Your task to perform on an android device: Show me popular videos on Youtube Image 0: 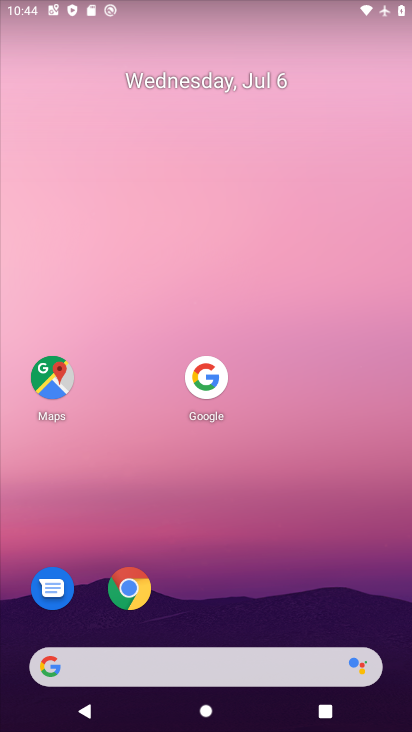
Step 0: drag from (190, 666) to (311, 43)
Your task to perform on an android device: Show me popular videos on Youtube Image 1: 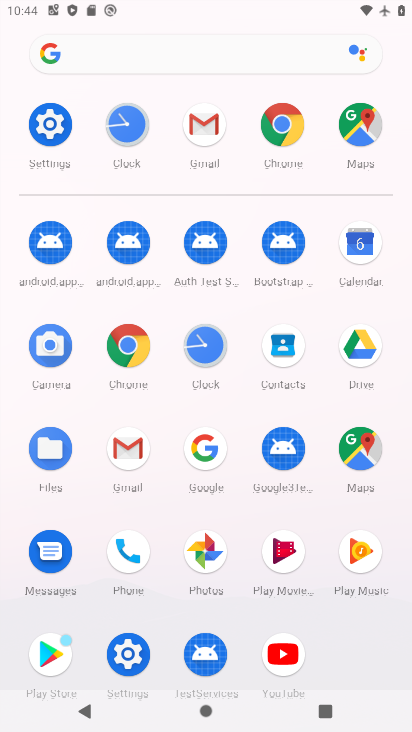
Step 1: click (286, 650)
Your task to perform on an android device: Show me popular videos on Youtube Image 2: 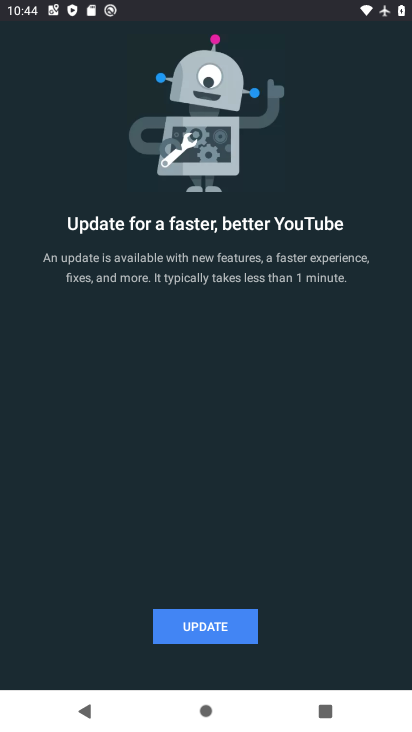
Step 2: click (234, 627)
Your task to perform on an android device: Show me popular videos on Youtube Image 3: 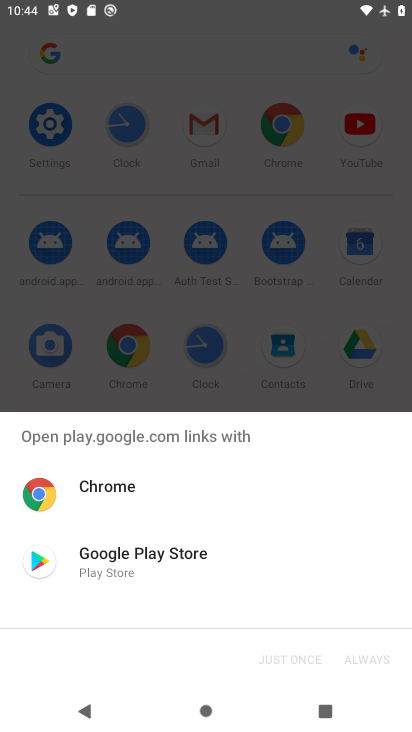
Step 3: click (128, 544)
Your task to perform on an android device: Show me popular videos on Youtube Image 4: 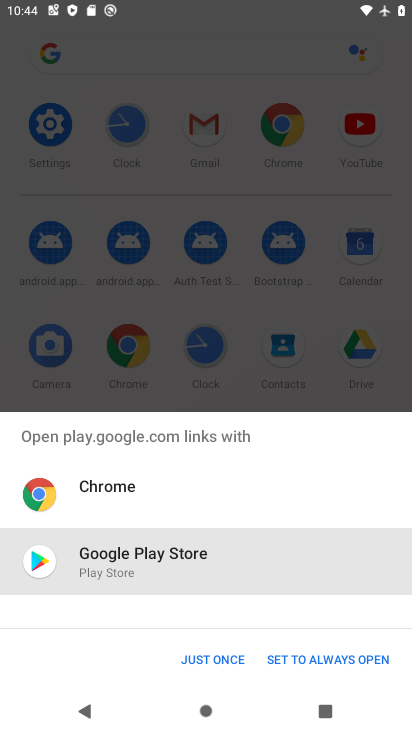
Step 4: click (230, 663)
Your task to perform on an android device: Show me popular videos on Youtube Image 5: 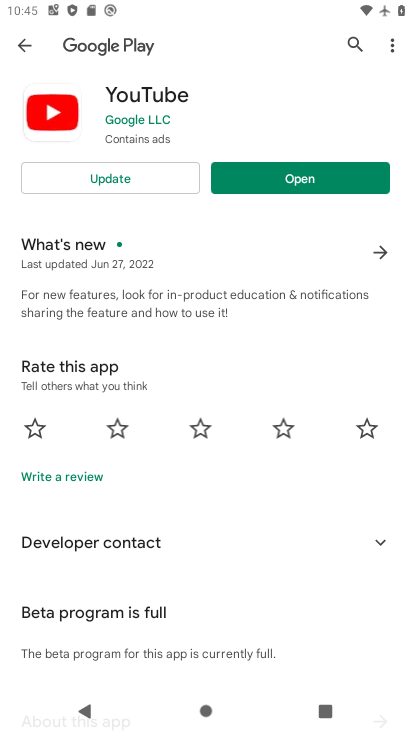
Step 5: click (151, 189)
Your task to perform on an android device: Show me popular videos on Youtube Image 6: 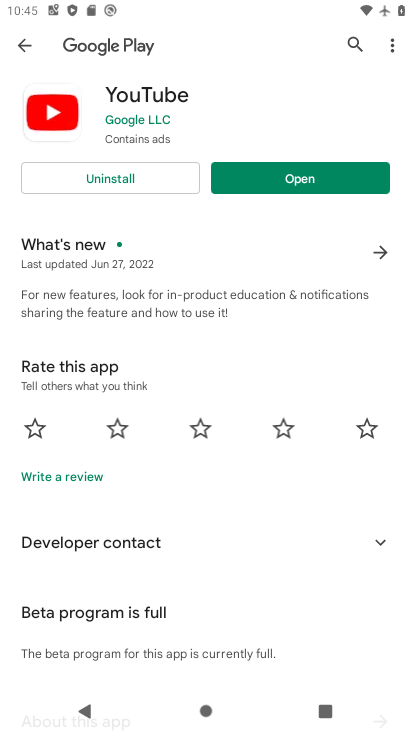
Step 6: click (324, 174)
Your task to perform on an android device: Show me popular videos on Youtube Image 7: 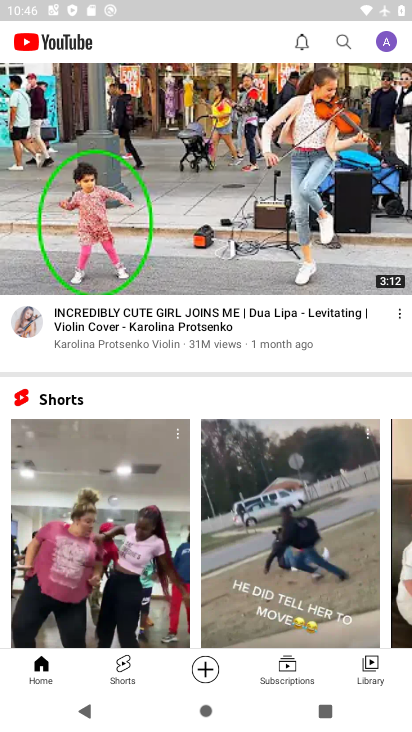
Step 7: task complete